Your task to perform on an android device: Open notification settings Image 0: 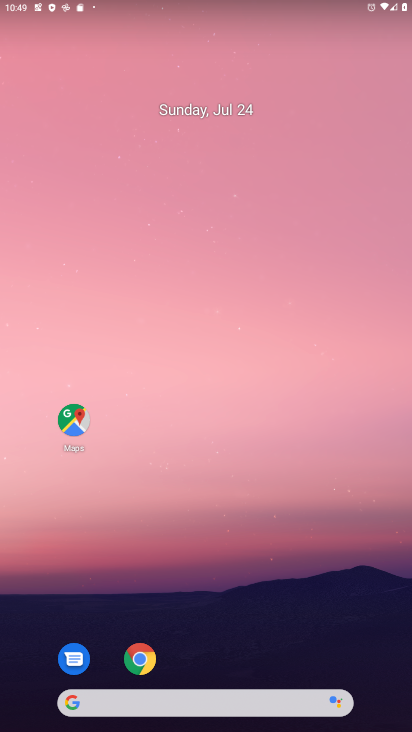
Step 0: drag from (393, 720) to (340, 147)
Your task to perform on an android device: Open notification settings Image 1: 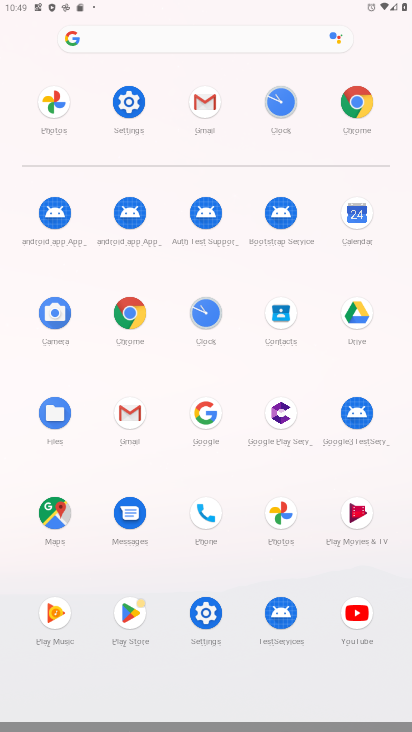
Step 1: click (124, 99)
Your task to perform on an android device: Open notification settings Image 2: 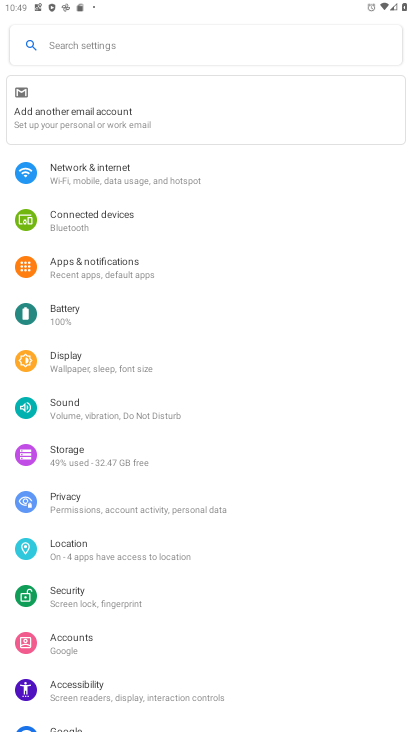
Step 2: click (90, 259)
Your task to perform on an android device: Open notification settings Image 3: 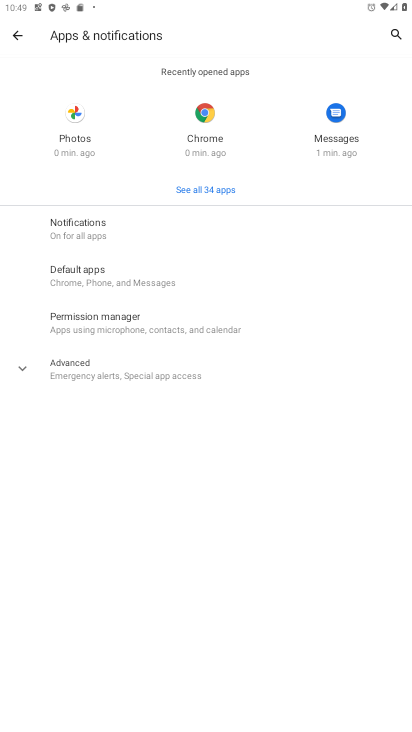
Step 3: click (75, 211)
Your task to perform on an android device: Open notification settings Image 4: 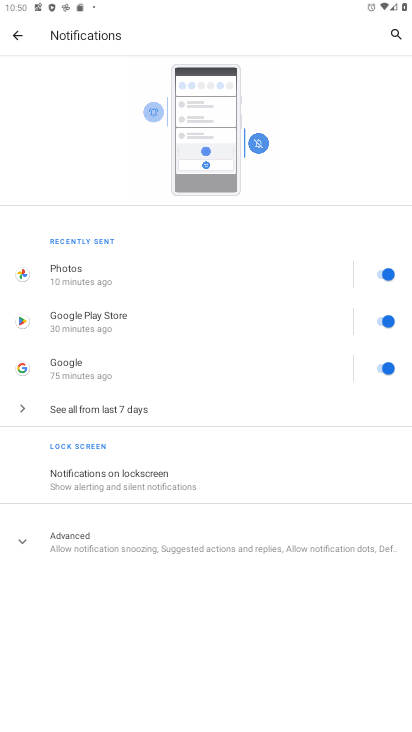
Step 4: task complete